Your task to perform on an android device: Toggle the flashlight Image 0: 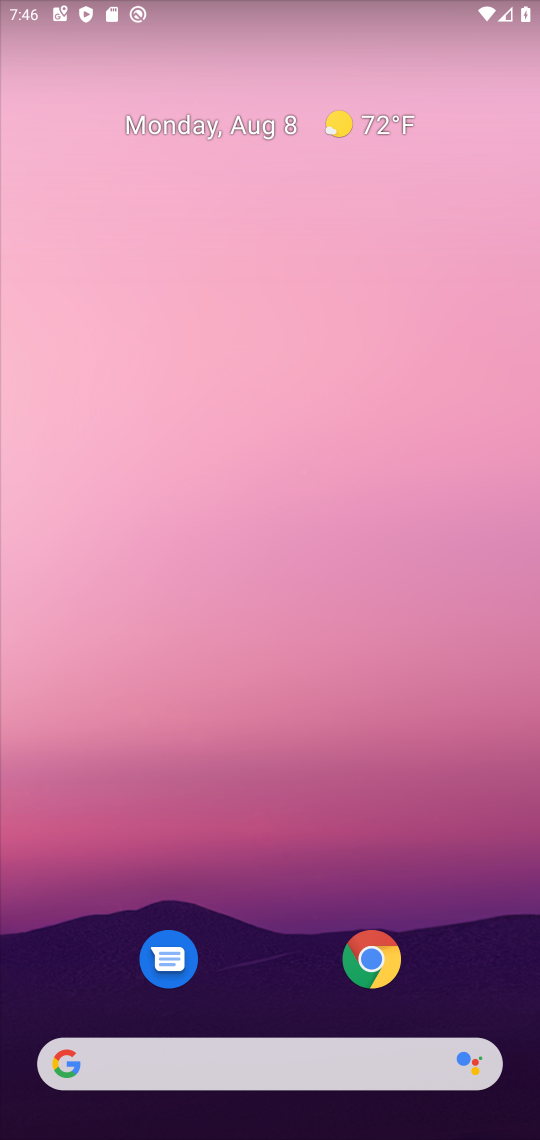
Step 0: drag from (488, 925) to (304, 289)
Your task to perform on an android device: Toggle the flashlight Image 1: 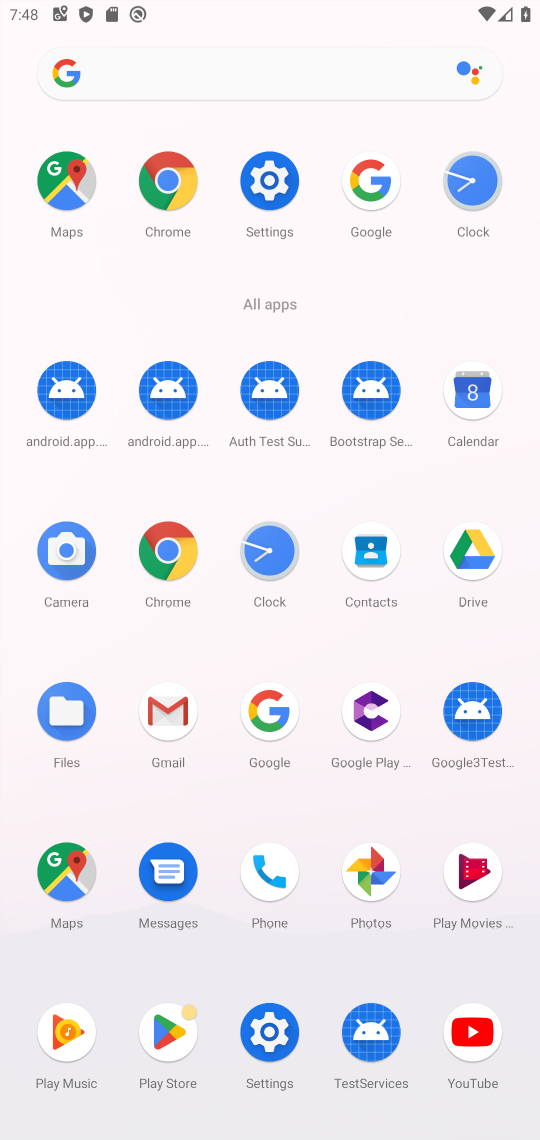
Step 1: task complete